Your task to perform on an android device: Open Google Maps Image 0: 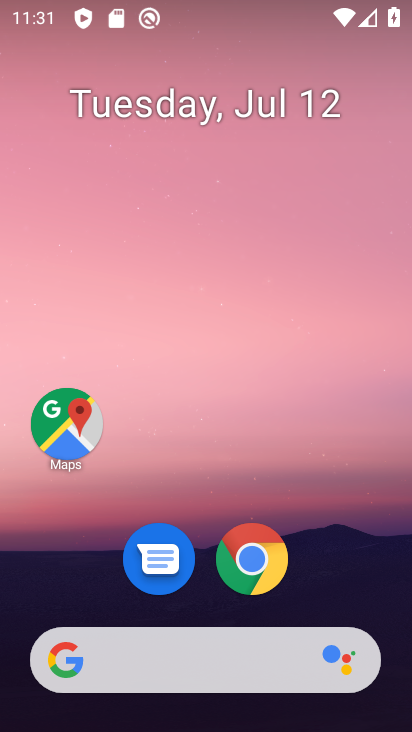
Step 0: drag from (246, 600) to (304, 115)
Your task to perform on an android device: Open Google Maps Image 1: 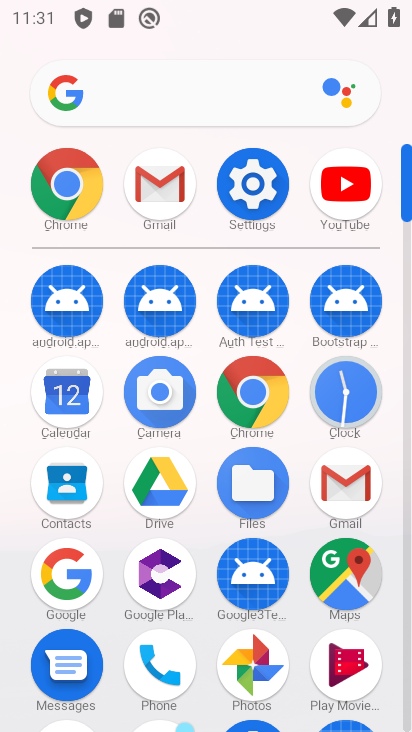
Step 1: drag from (189, 527) to (201, 296)
Your task to perform on an android device: Open Google Maps Image 2: 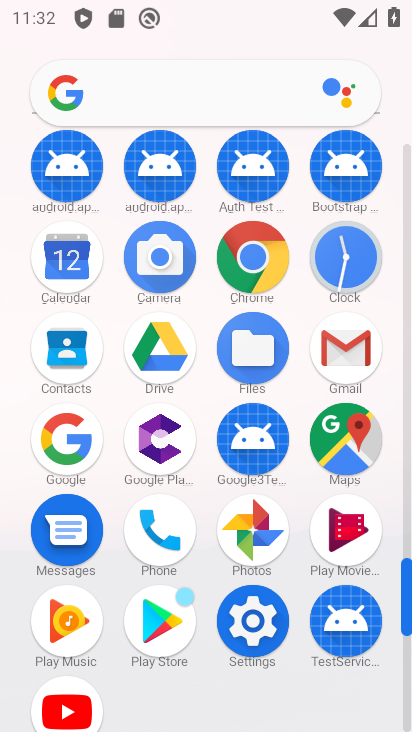
Step 2: click (369, 442)
Your task to perform on an android device: Open Google Maps Image 3: 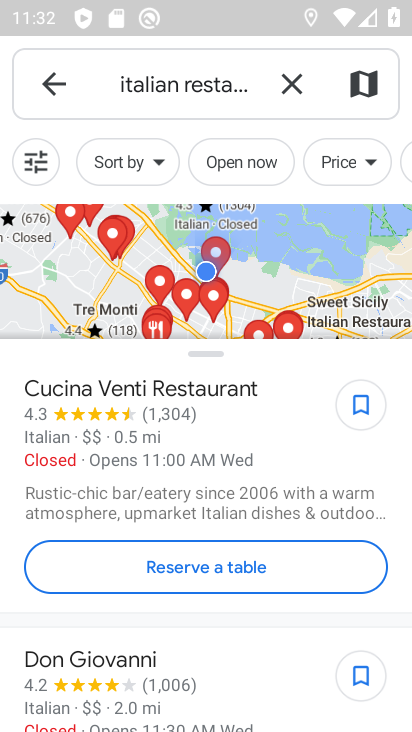
Step 3: task complete